Your task to perform on an android device: Open Chrome and go to settings Image 0: 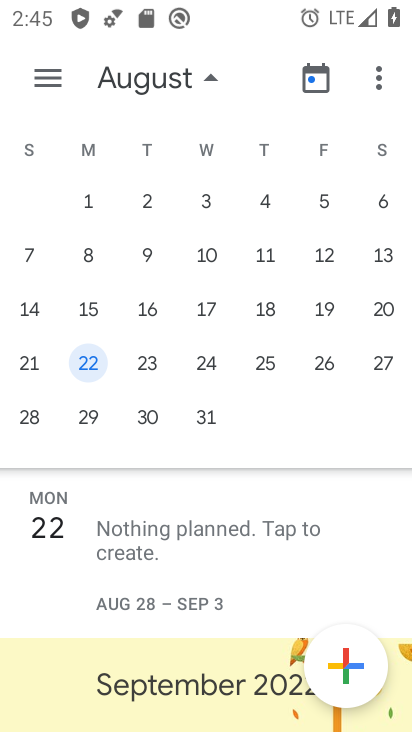
Step 0: press back button
Your task to perform on an android device: Open Chrome and go to settings Image 1: 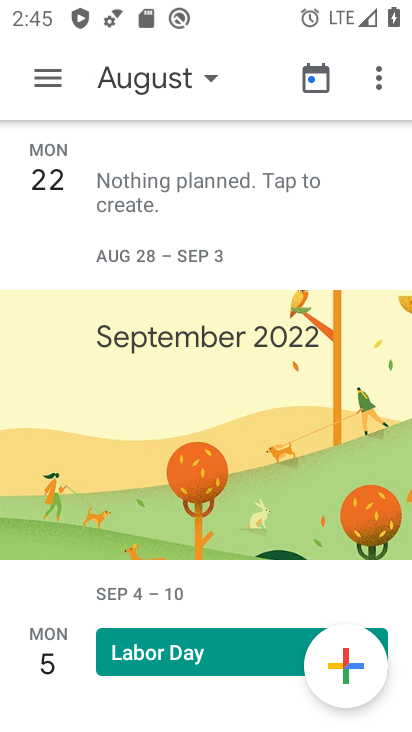
Step 1: press back button
Your task to perform on an android device: Open Chrome and go to settings Image 2: 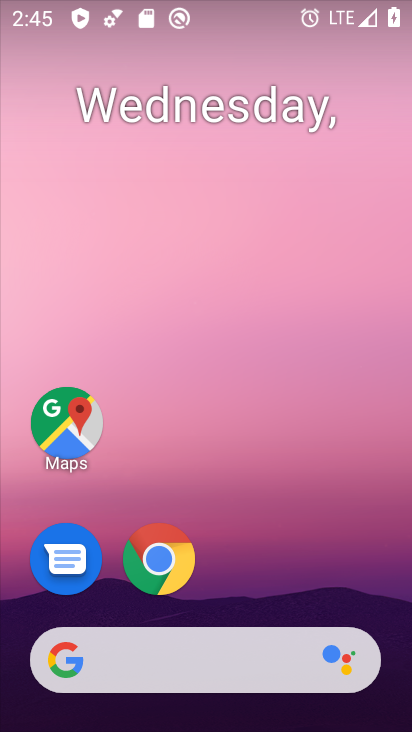
Step 2: drag from (218, 601) to (300, 18)
Your task to perform on an android device: Open Chrome and go to settings Image 3: 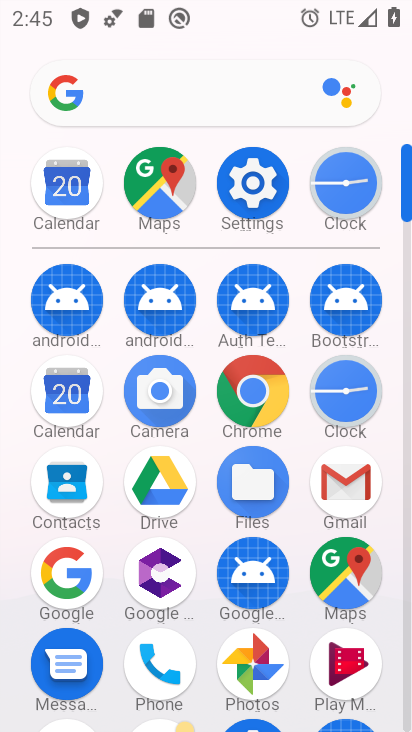
Step 3: click (259, 409)
Your task to perform on an android device: Open Chrome and go to settings Image 4: 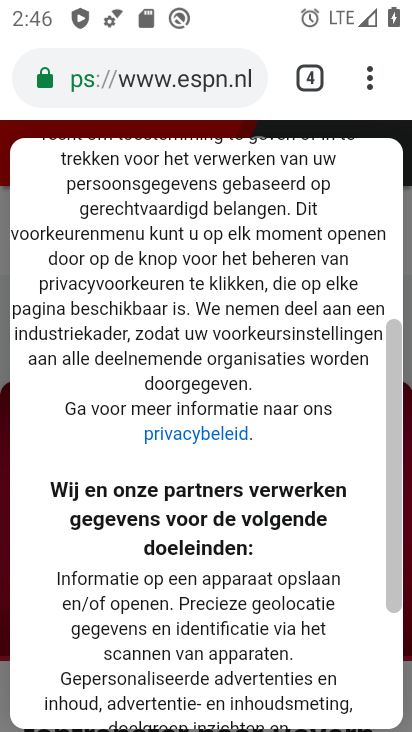
Step 4: task complete